Your task to perform on an android device: star an email in the gmail app Image 0: 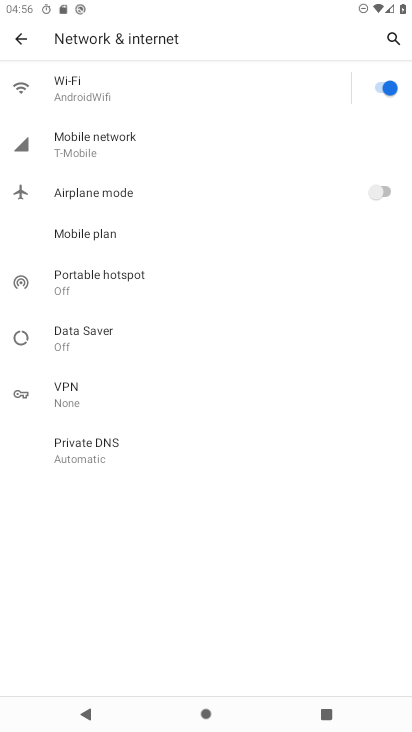
Step 0: press home button
Your task to perform on an android device: star an email in the gmail app Image 1: 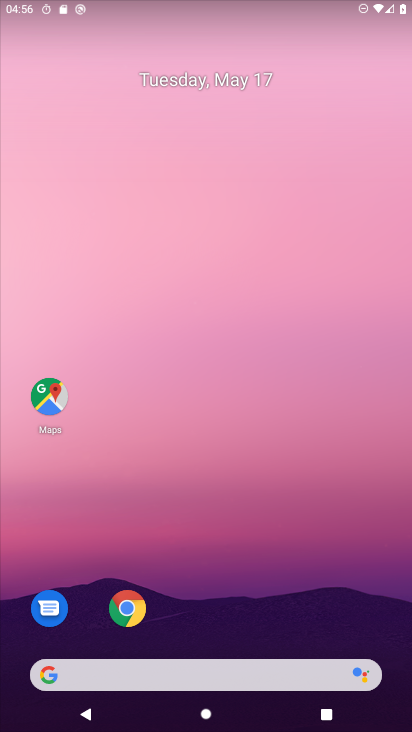
Step 1: drag from (223, 659) to (227, 314)
Your task to perform on an android device: star an email in the gmail app Image 2: 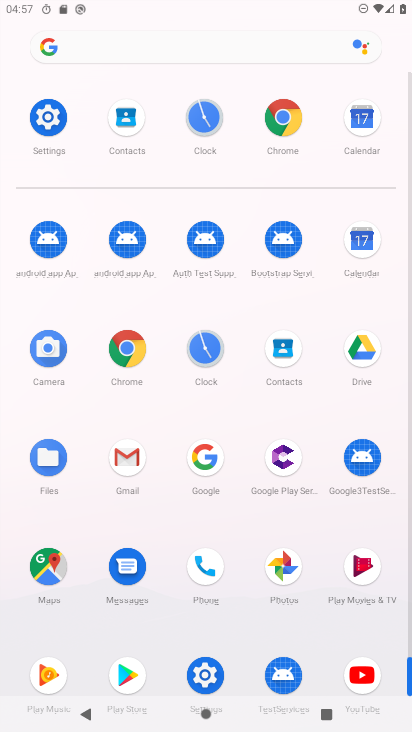
Step 2: click (129, 468)
Your task to perform on an android device: star an email in the gmail app Image 3: 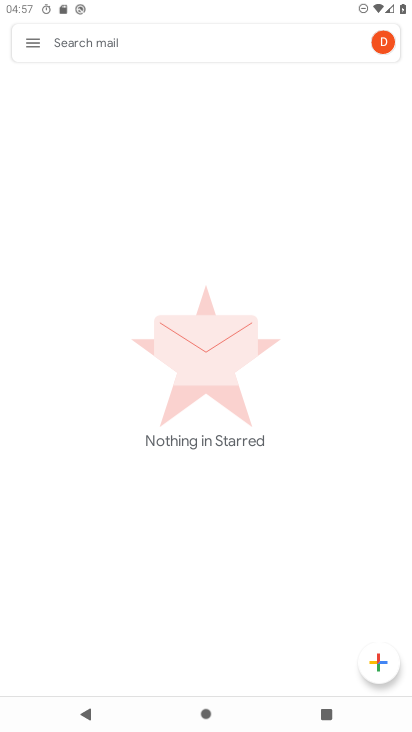
Step 3: click (34, 50)
Your task to perform on an android device: star an email in the gmail app Image 4: 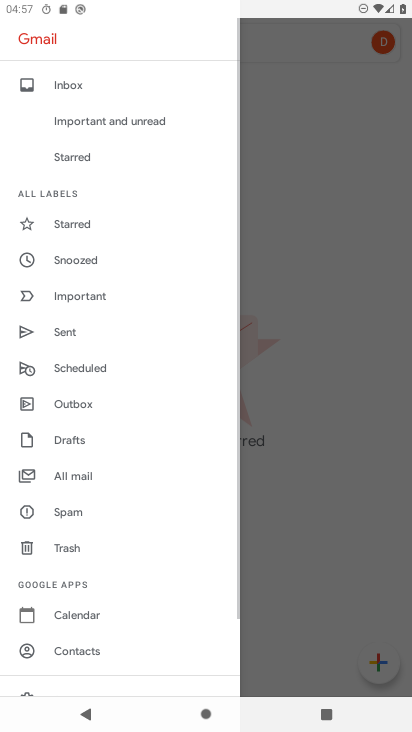
Step 4: click (86, 77)
Your task to perform on an android device: star an email in the gmail app Image 5: 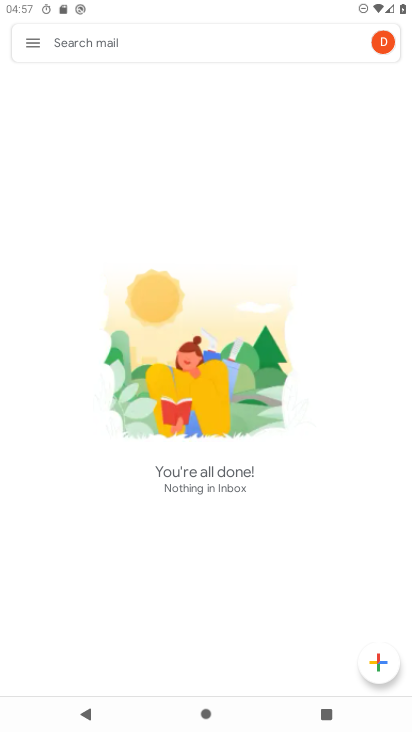
Step 5: task complete